Your task to perform on an android device: toggle airplane mode Image 0: 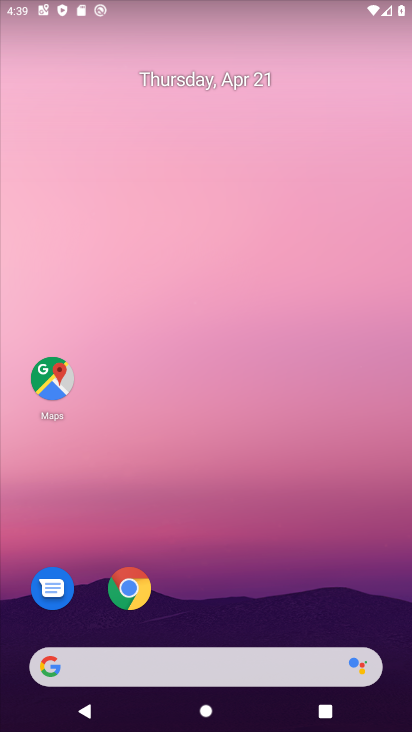
Step 0: drag from (222, 524) to (296, 36)
Your task to perform on an android device: toggle airplane mode Image 1: 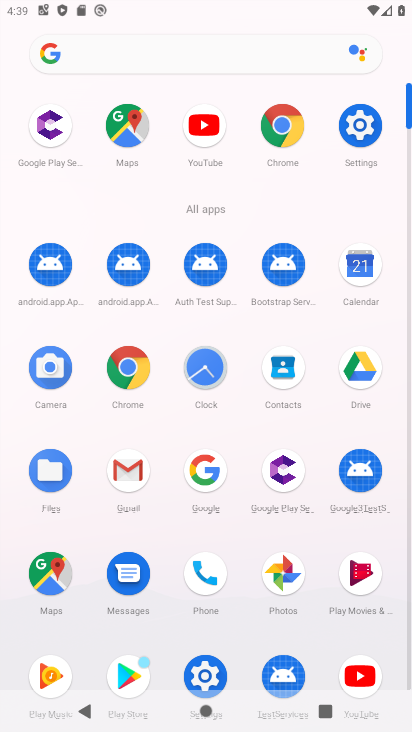
Step 1: drag from (333, 5) to (295, 540)
Your task to perform on an android device: toggle airplane mode Image 2: 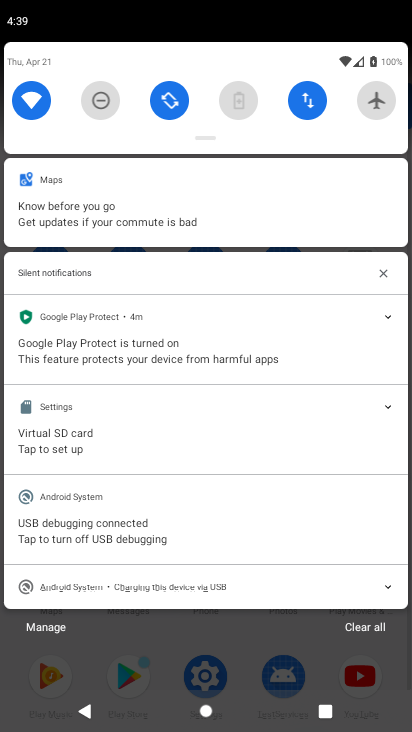
Step 2: click (385, 97)
Your task to perform on an android device: toggle airplane mode Image 3: 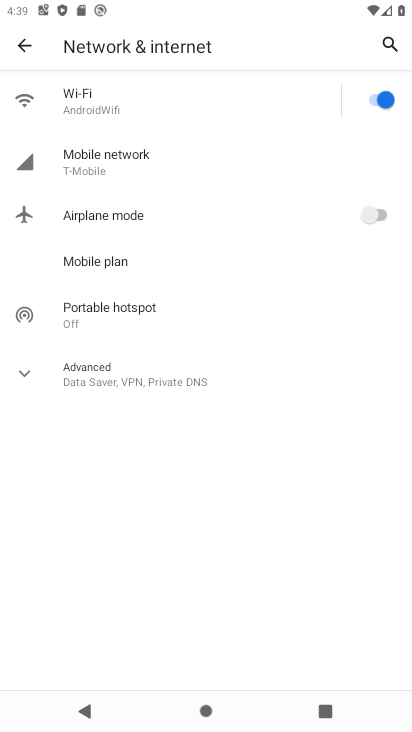
Step 3: click (379, 211)
Your task to perform on an android device: toggle airplane mode Image 4: 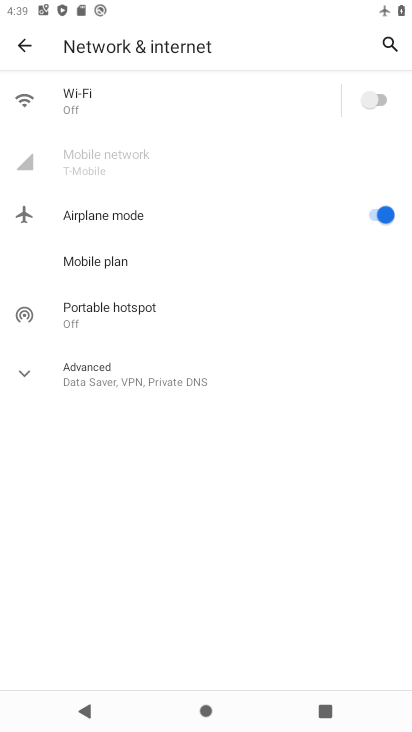
Step 4: task complete